Your task to perform on an android device: Do I have any events tomorrow? Image 0: 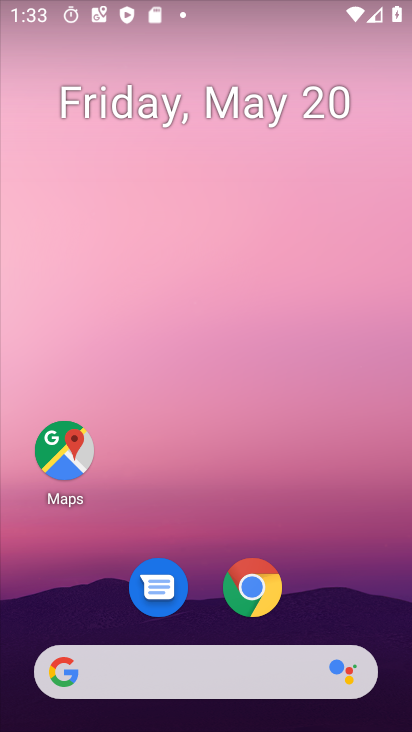
Step 0: drag from (341, 546) to (331, 146)
Your task to perform on an android device: Do I have any events tomorrow? Image 1: 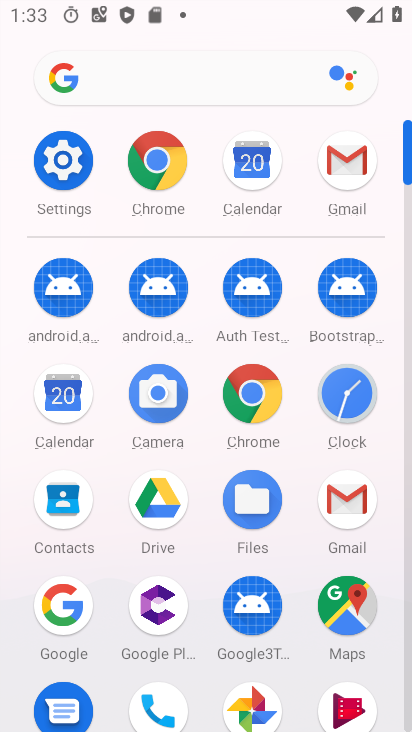
Step 1: click (267, 169)
Your task to perform on an android device: Do I have any events tomorrow? Image 2: 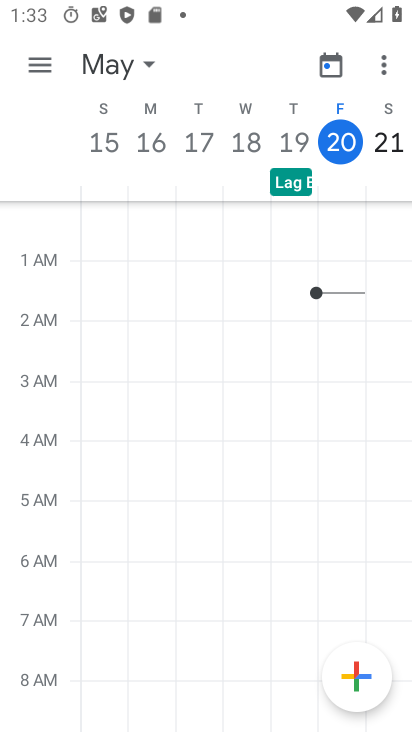
Step 2: click (386, 144)
Your task to perform on an android device: Do I have any events tomorrow? Image 3: 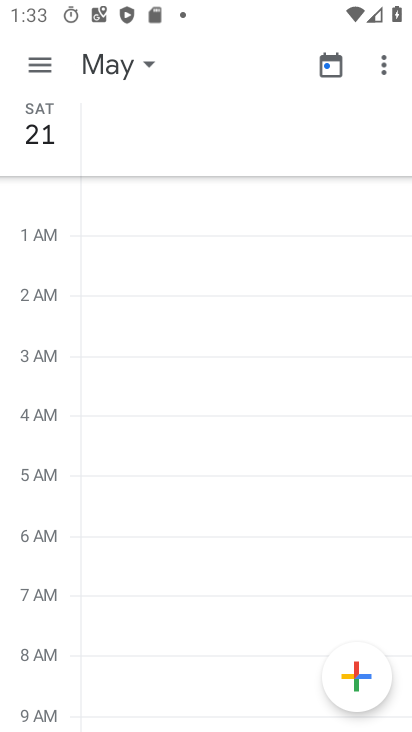
Step 3: task complete